Your task to perform on an android device: Open CNN.com Image 0: 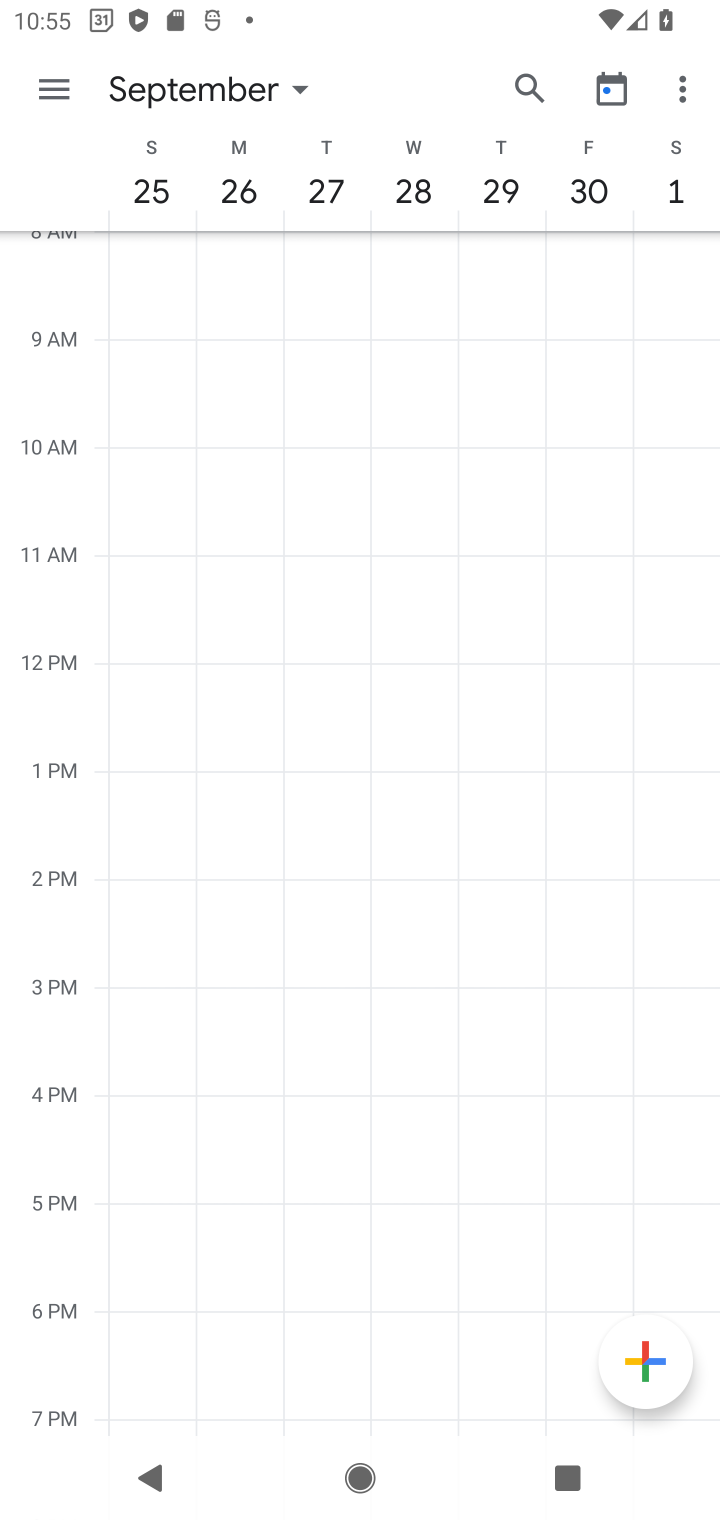
Step 0: press home button
Your task to perform on an android device: Open CNN.com Image 1: 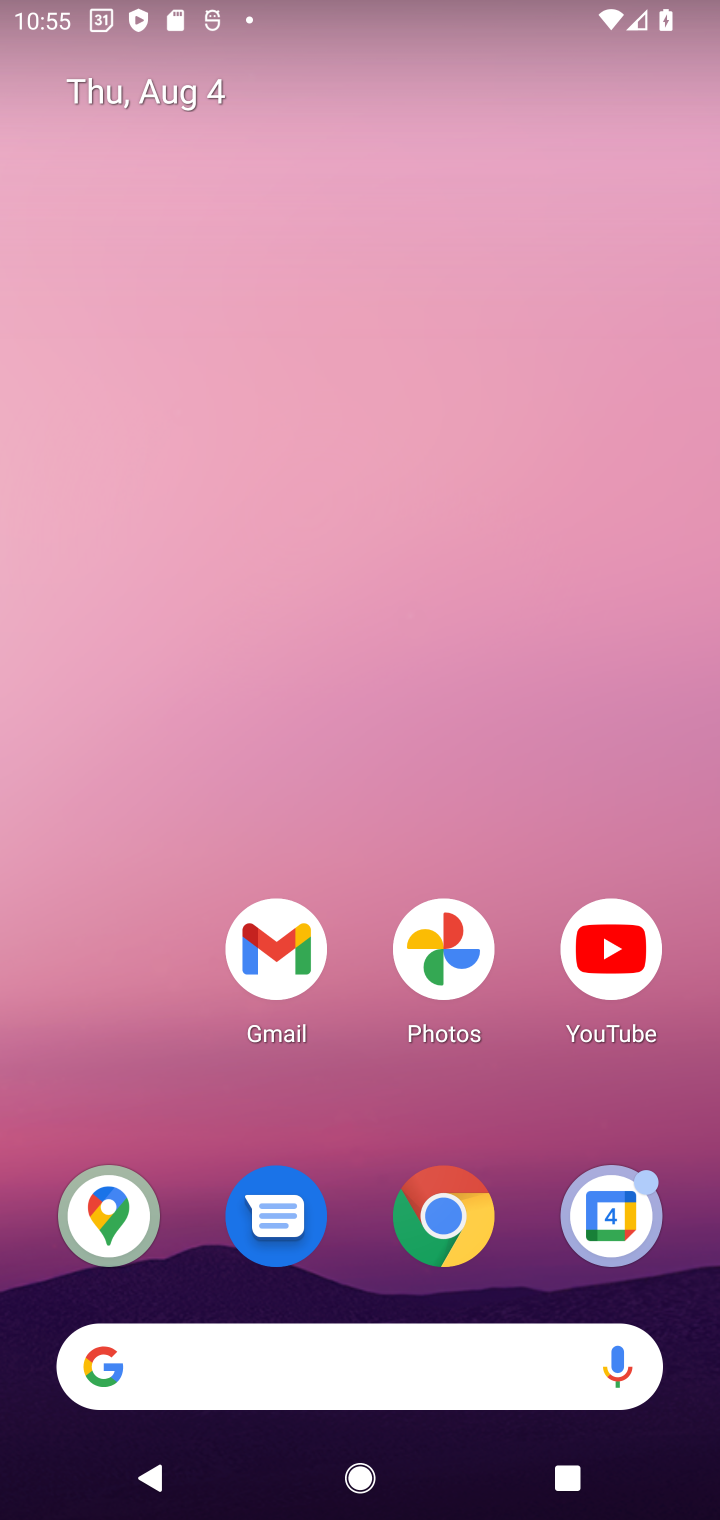
Step 1: drag from (344, 1383) to (346, 26)
Your task to perform on an android device: Open CNN.com Image 2: 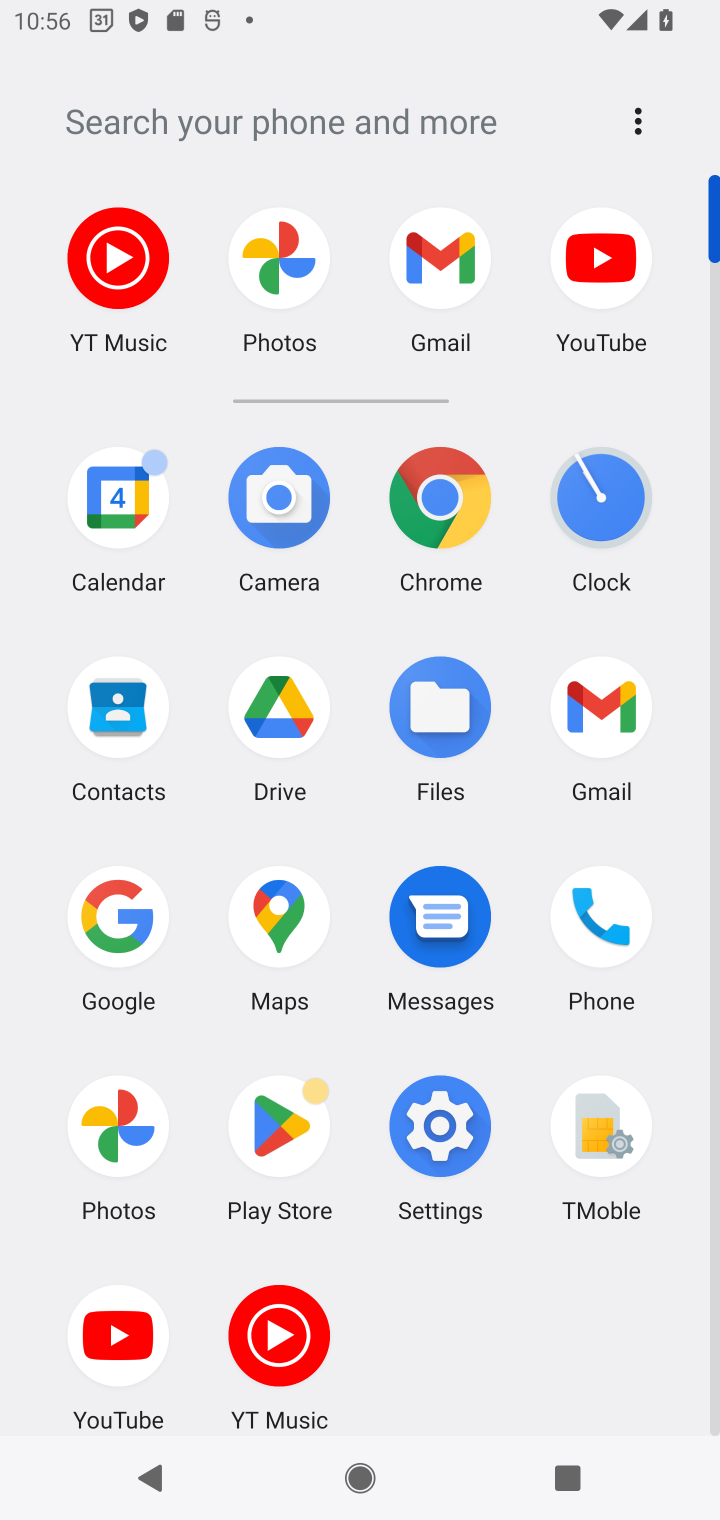
Step 2: click (434, 504)
Your task to perform on an android device: Open CNN.com Image 3: 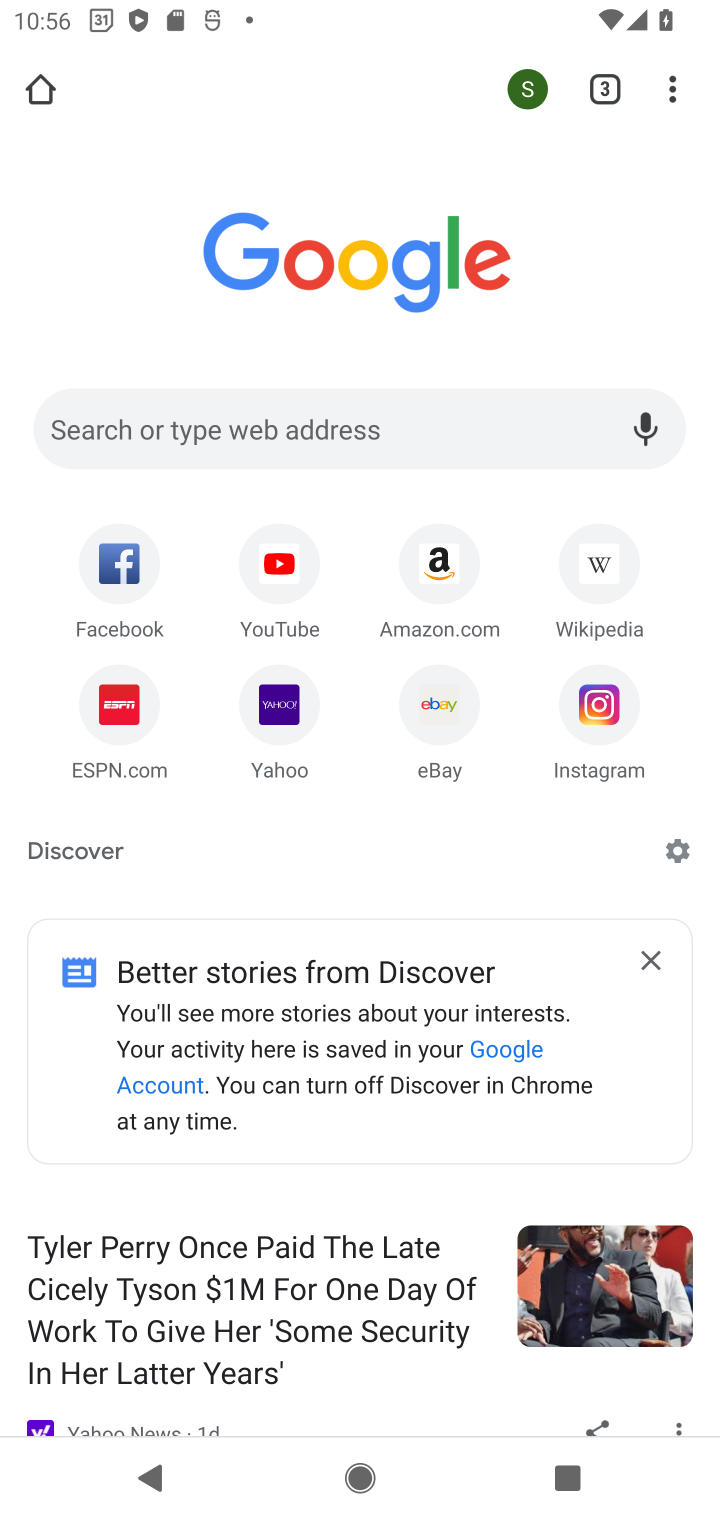
Step 3: click (446, 446)
Your task to perform on an android device: Open CNN.com Image 4: 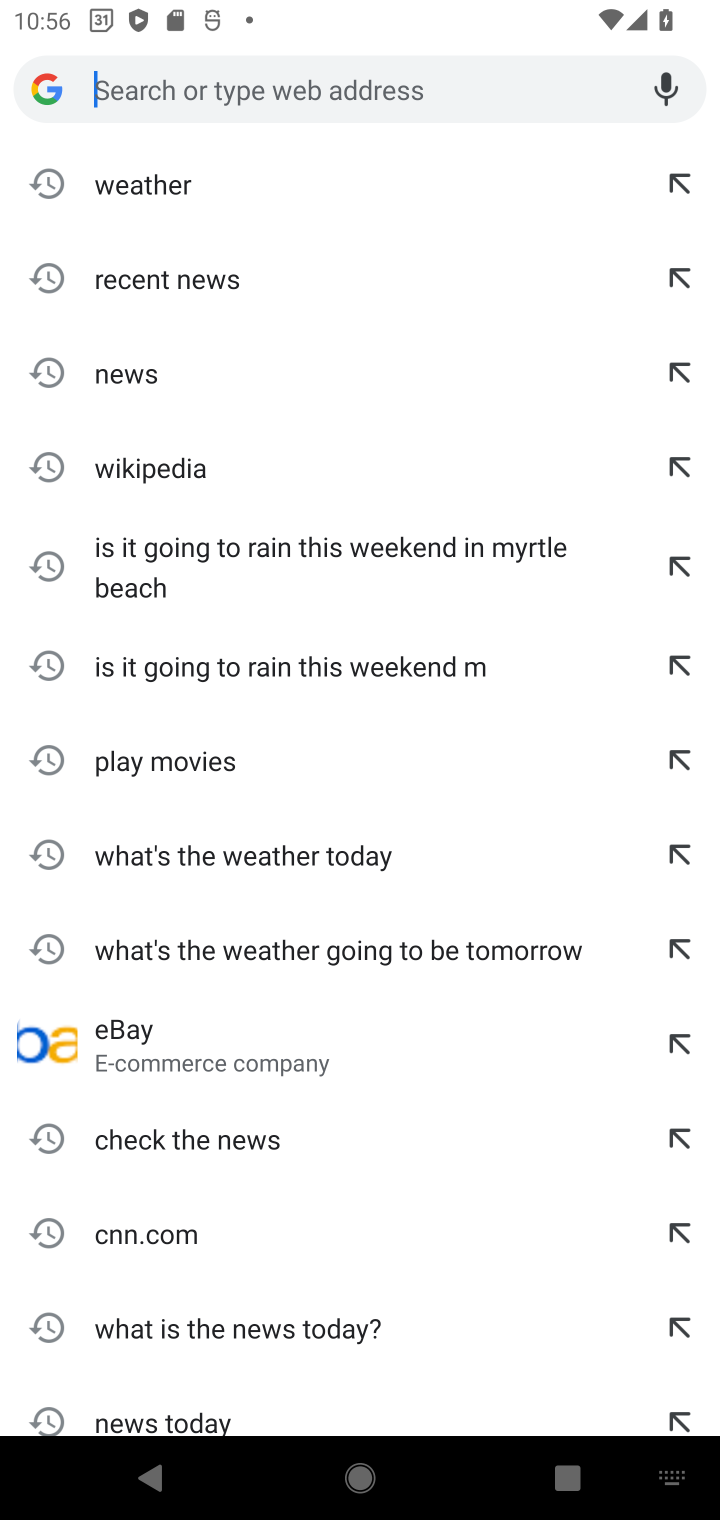
Step 4: type "CNN.com"
Your task to perform on an android device: Open CNN.com Image 5: 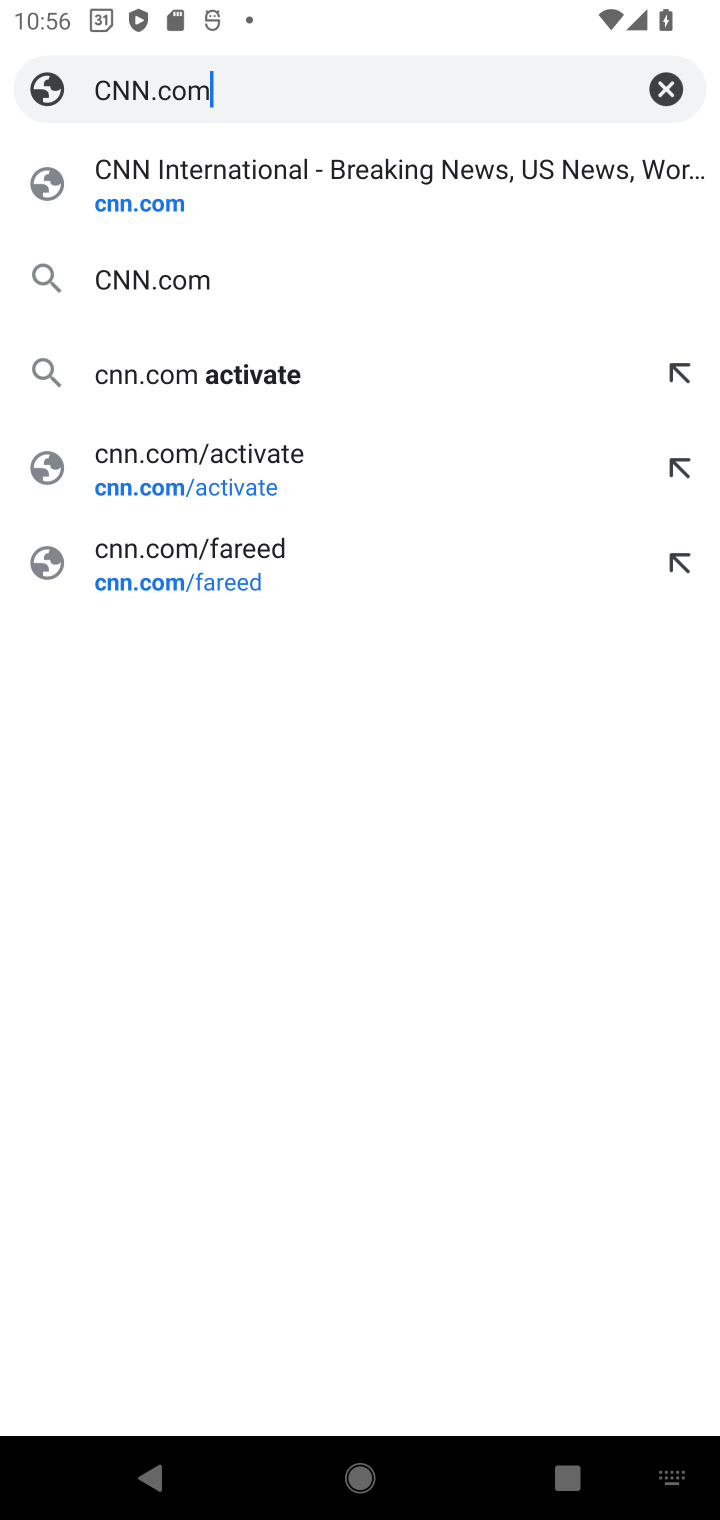
Step 5: click (172, 285)
Your task to perform on an android device: Open CNN.com Image 6: 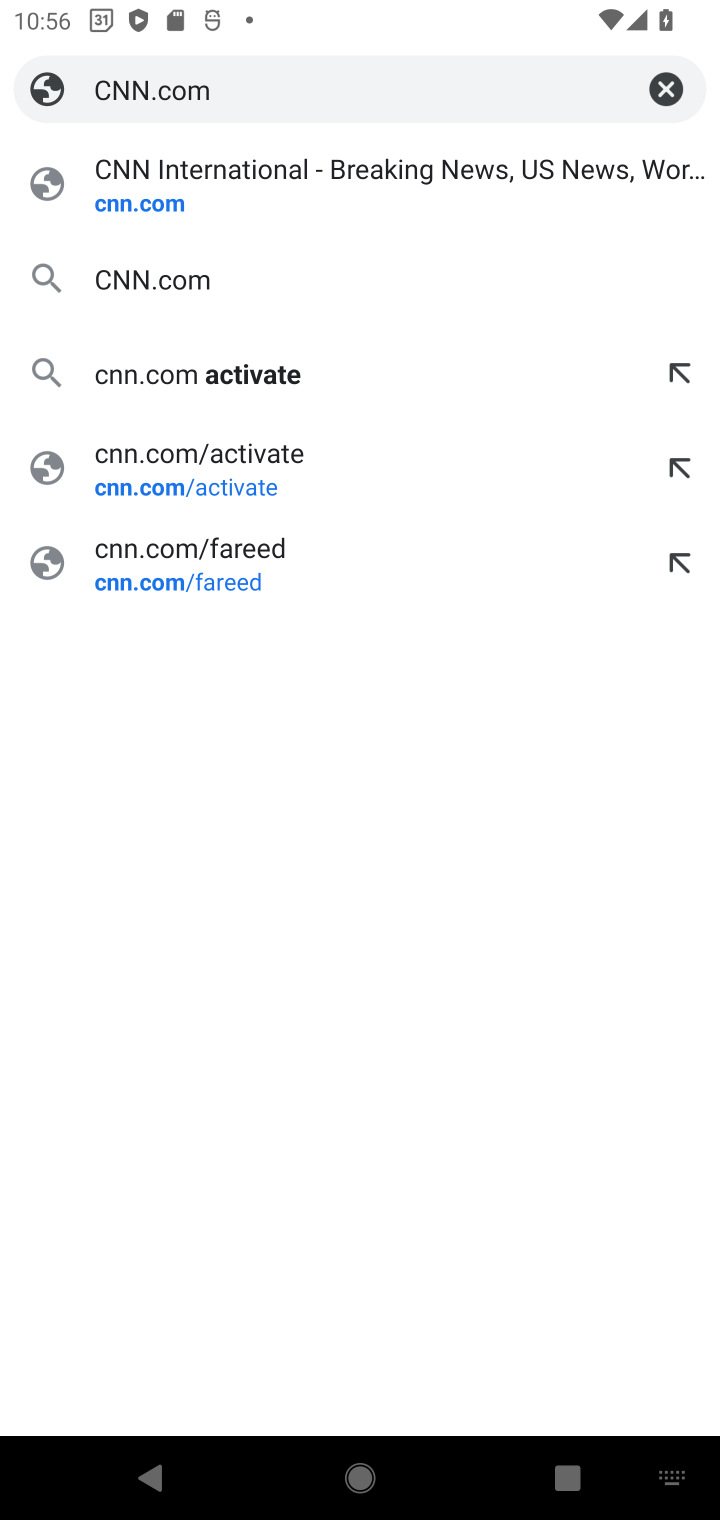
Step 6: click (160, 281)
Your task to perform on an android device: Open CNN.com Image 7: 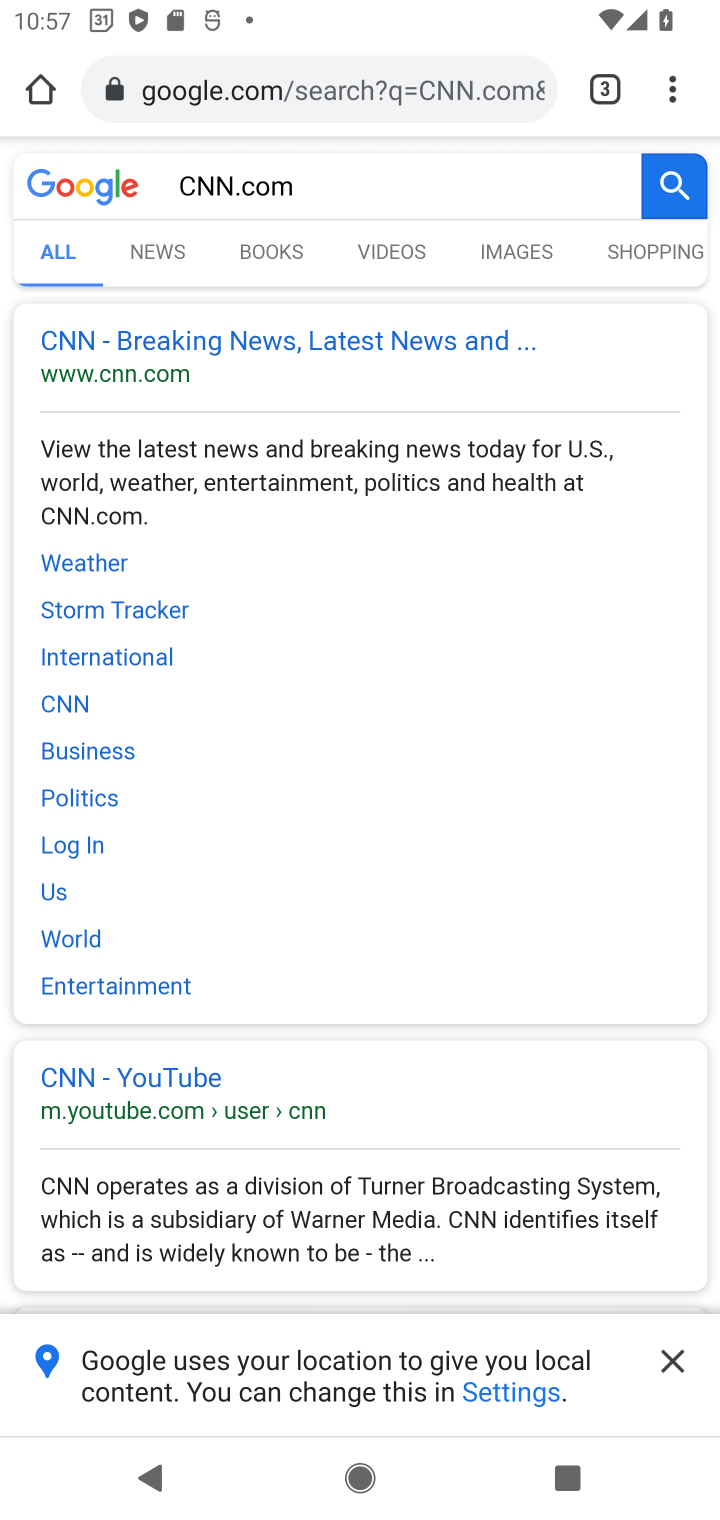
Step 7: click (181, 332)
Your task to perform on an android device: Open CNN.com Image 8: 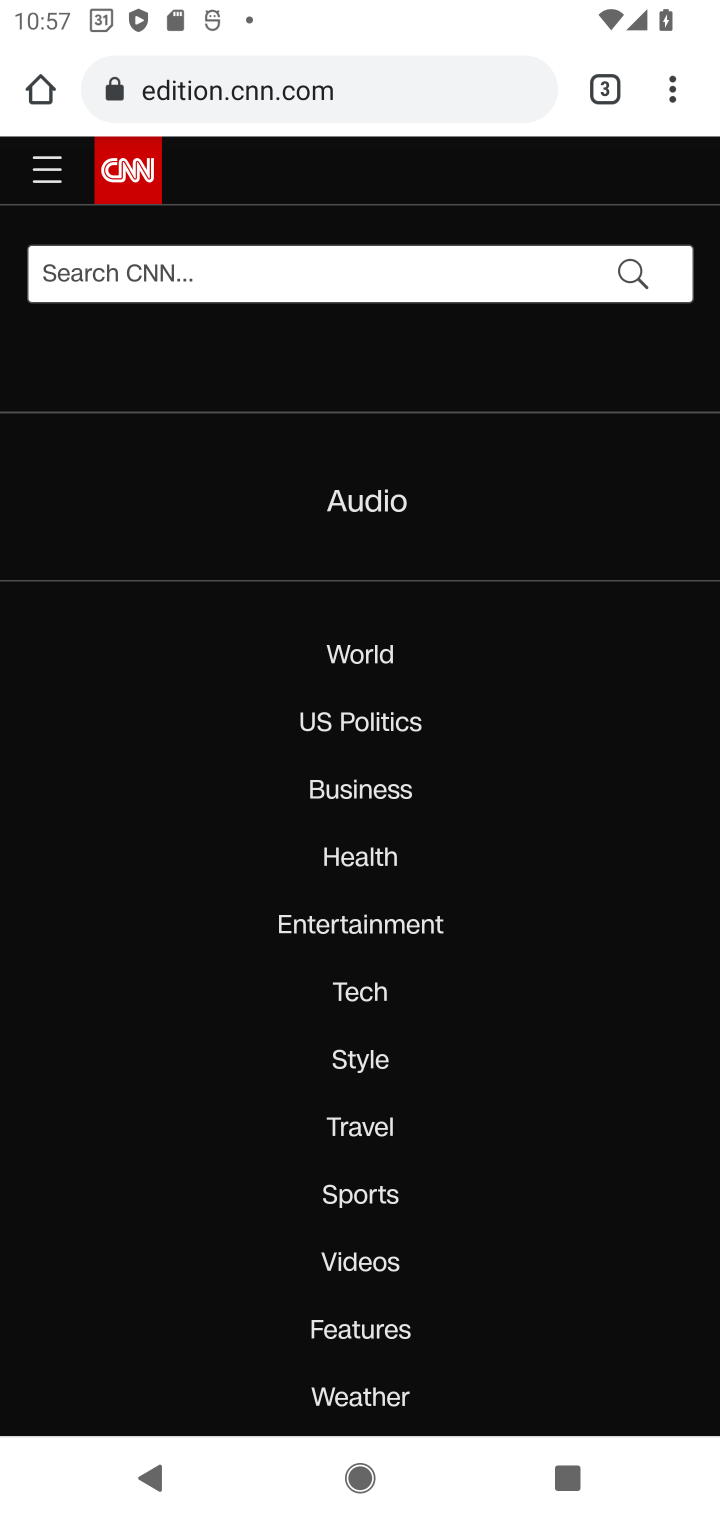
Step 8: task complete